Your task to perform on an android device: Clear all items from cart on ebay. Image 0: 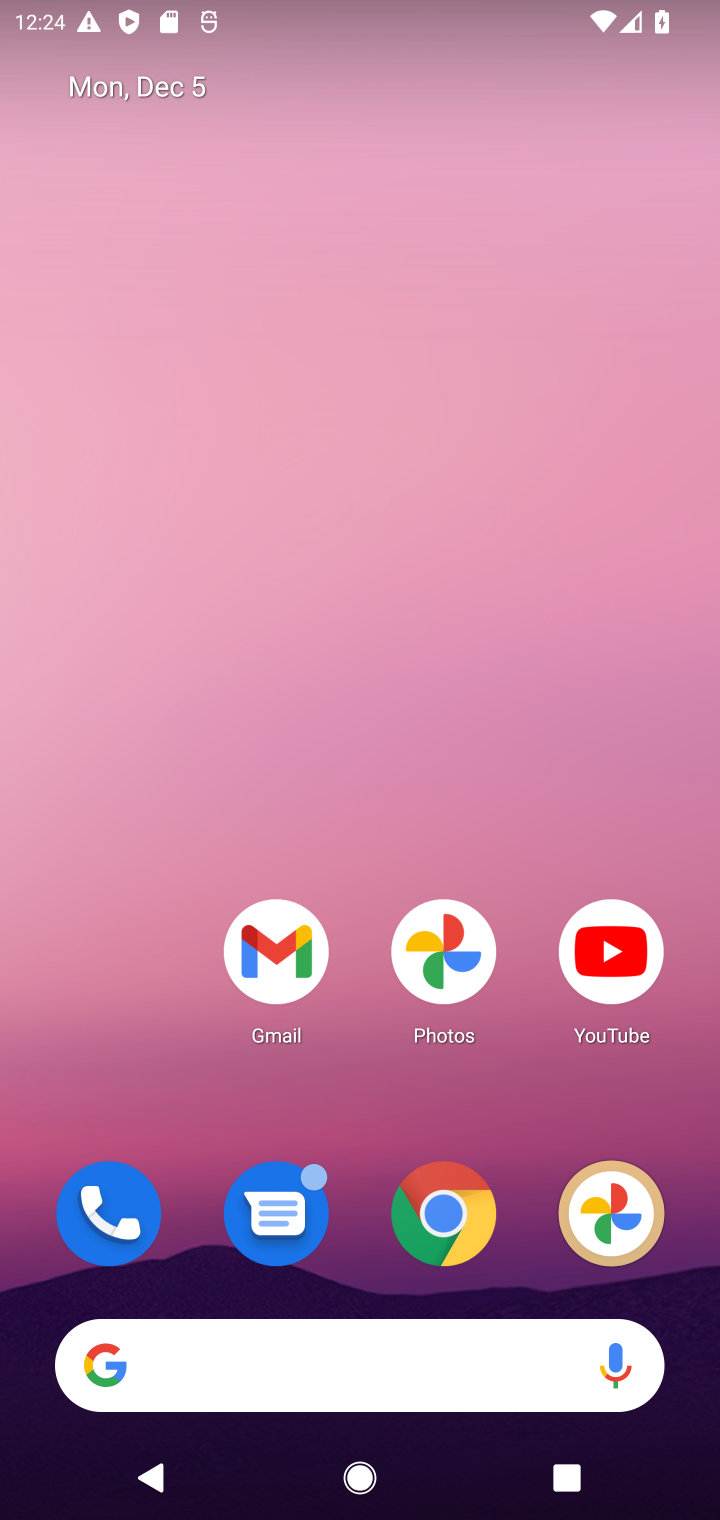
Step 0: click (447, 1223)
Your task to perform on an android device: Clear all items from cart on ebay. Image 1: 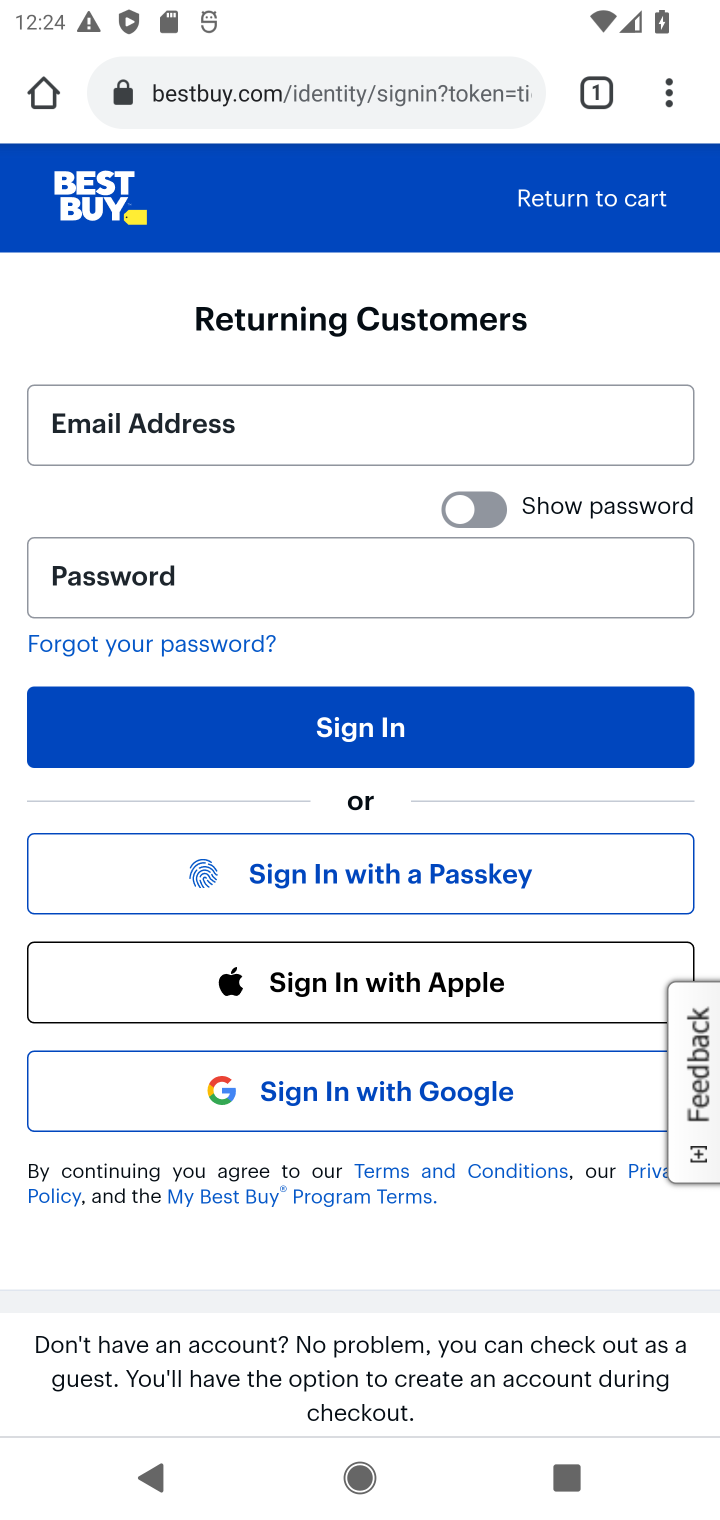
Step 1: click (331, 94)
Your task to perform on an android device: Clear all items from cart on ebay. Image 2: 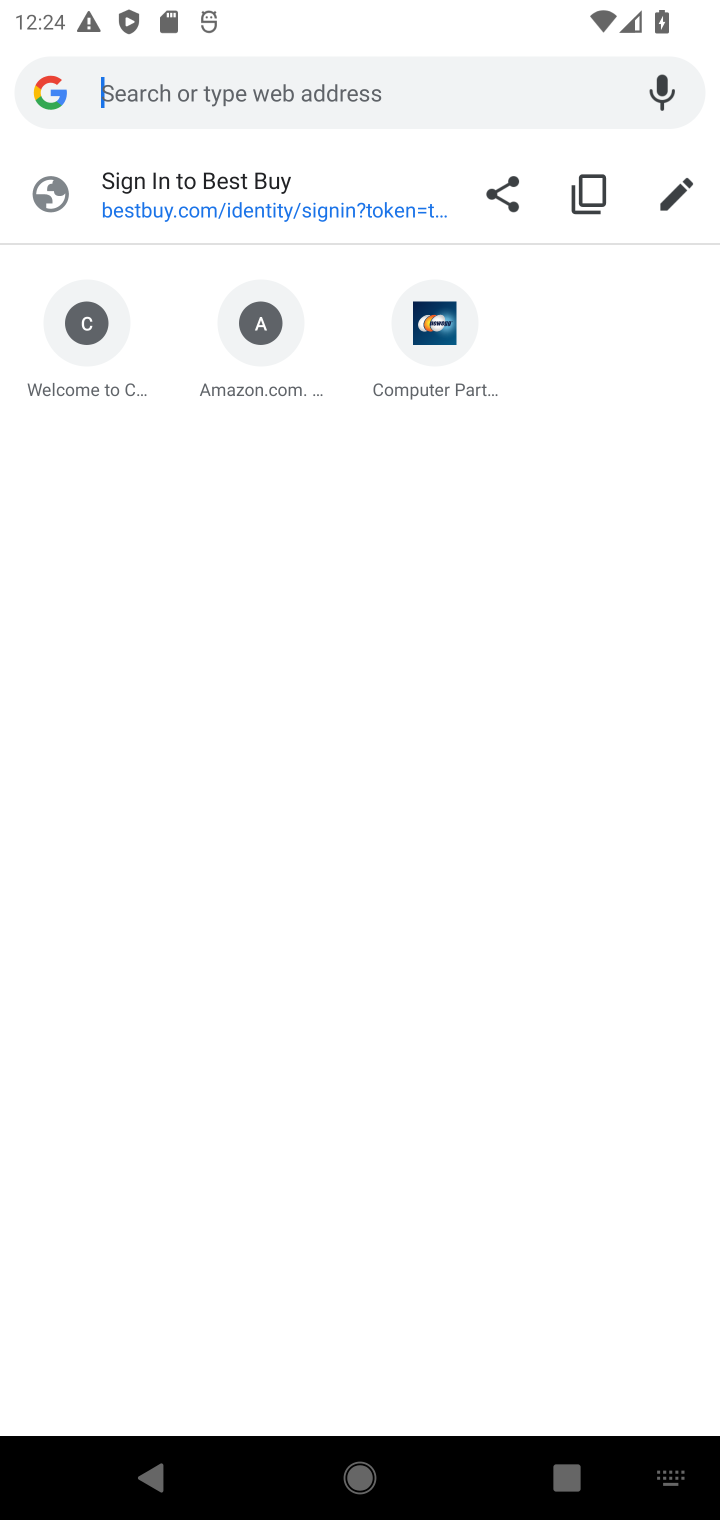
Step 2: type "ebay.com"
Your task to perform on an android device: Clear all items from cart on ebay. Image 3: 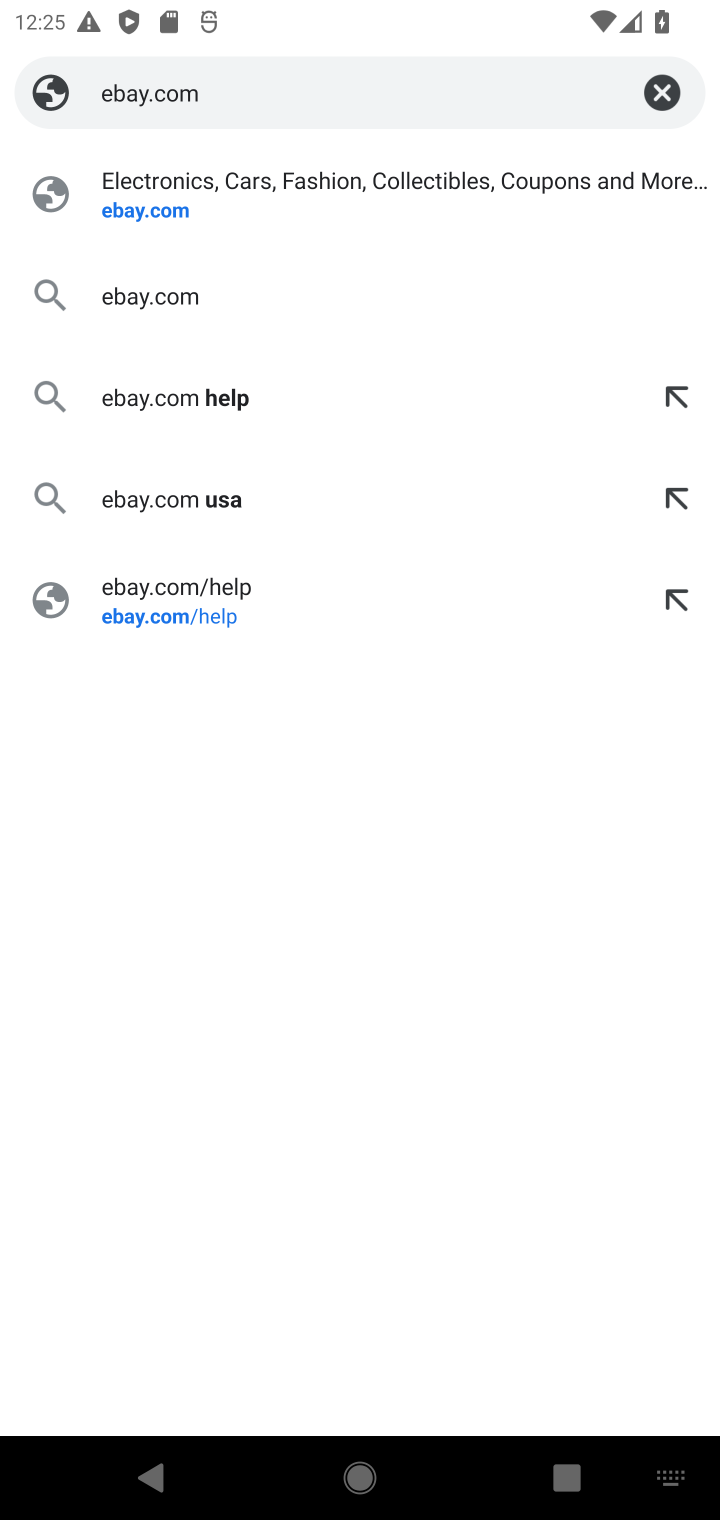
Step 3: click (147, 223)
Your task to perform on an android device: Clear all items from cart on ebay. Image 4: 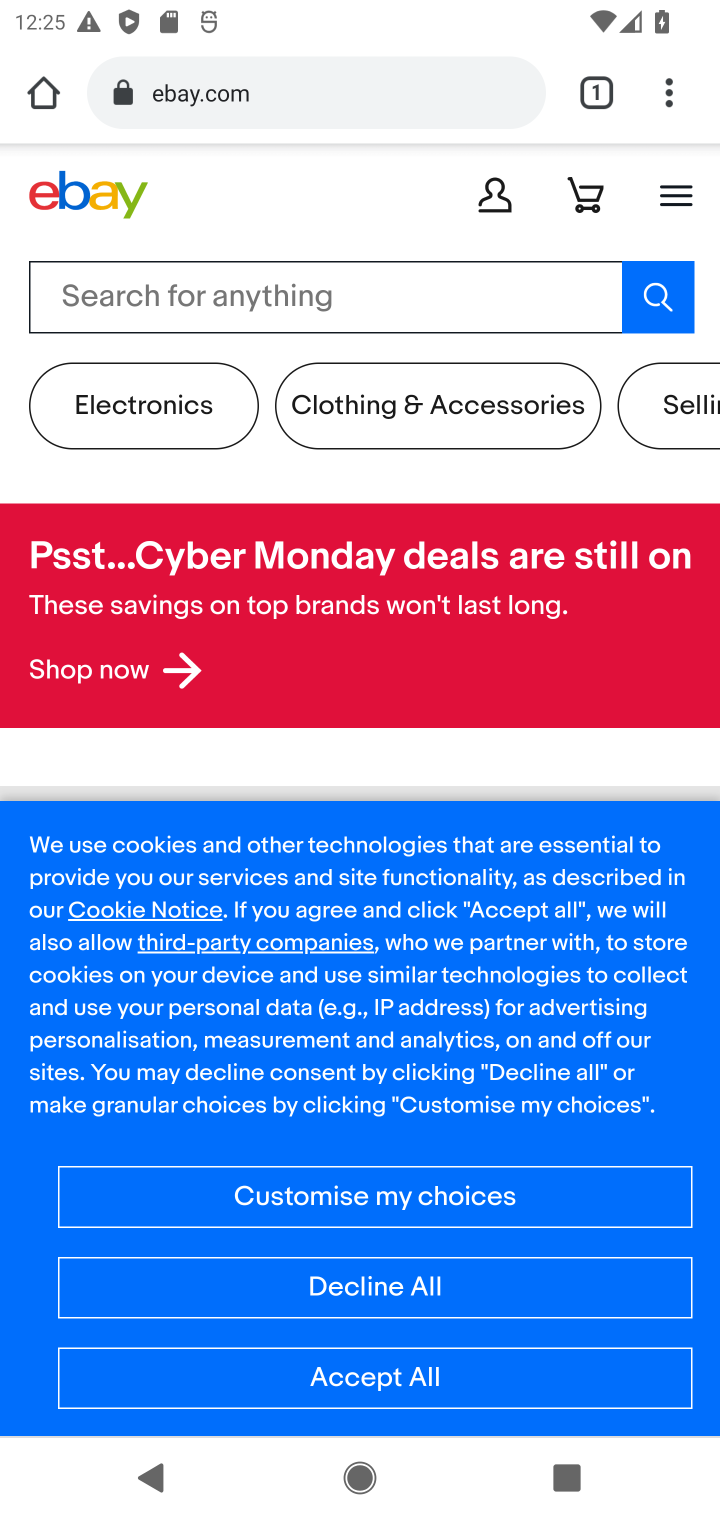
Step 4: click (589, 195)
Your task to perform on an android device: Clear all items from cart on ebay. Image 5: 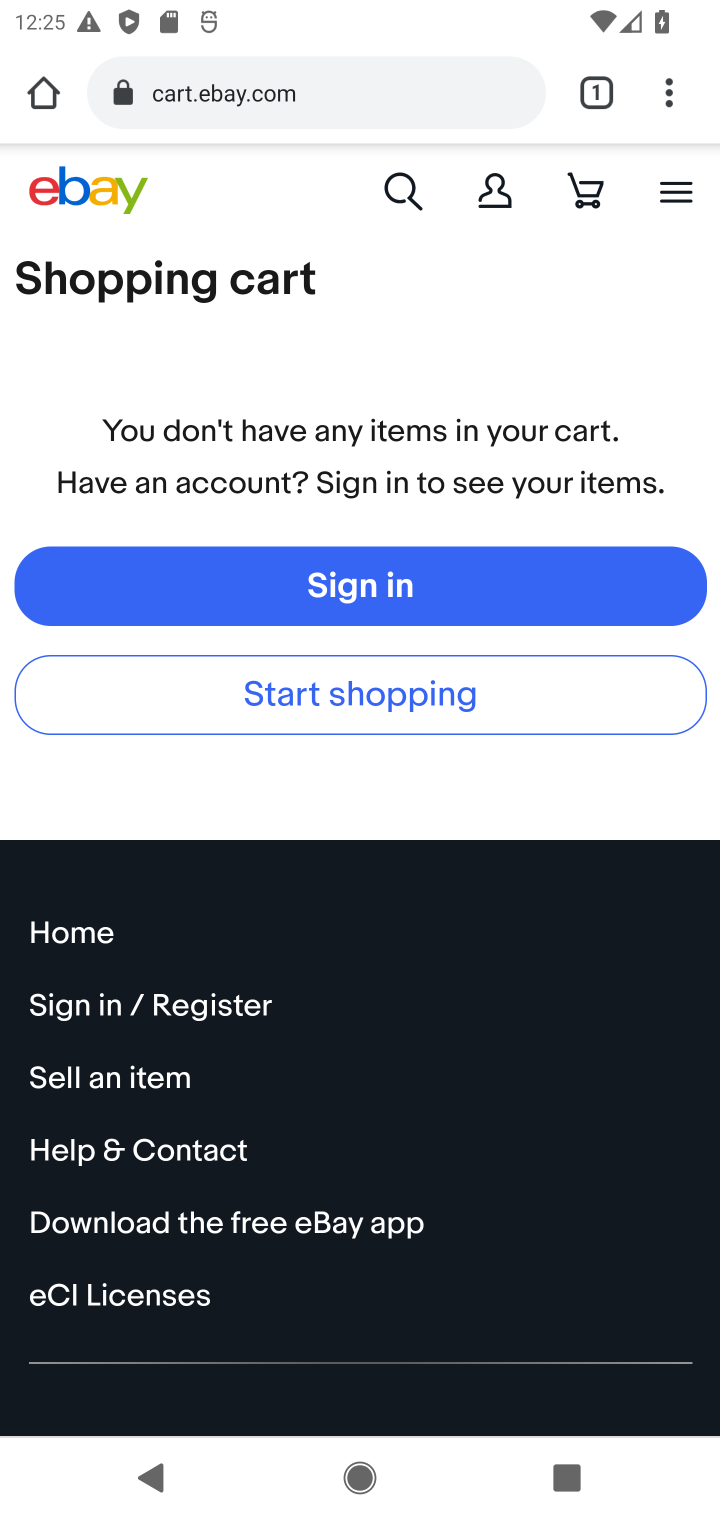
Step 5: task complete